Your task to perform on an android device: Go to battery settings Image 0: 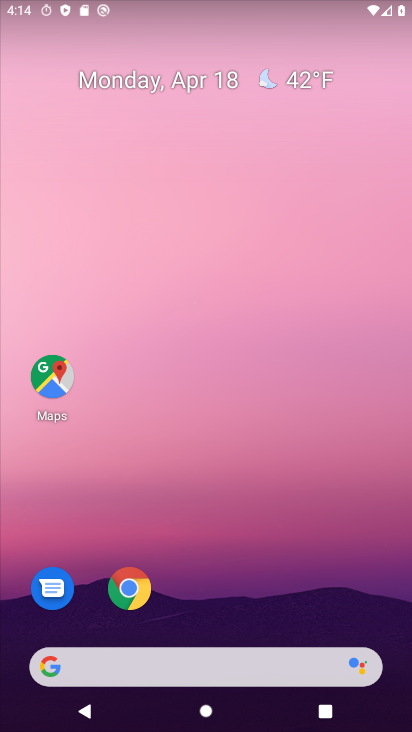
Step 0: drag from (216, 11) to (169, 730)
Your task to perform on an android device: Go to battery settings Image 1: 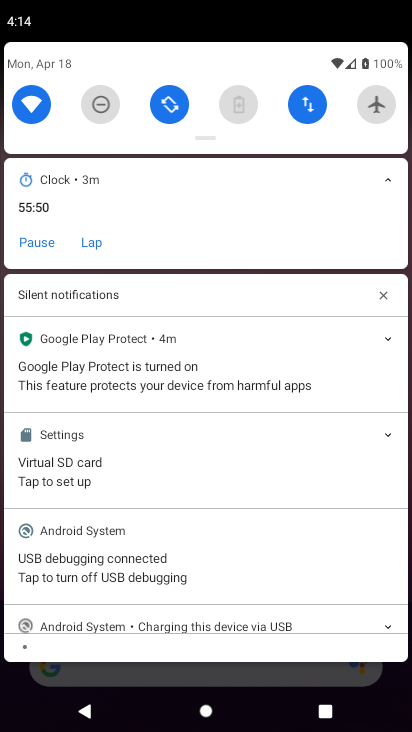
Step 1: drag from (155, 88) to (315, 612)
Your task to perform on an android device: Go to battery settings Image 2: 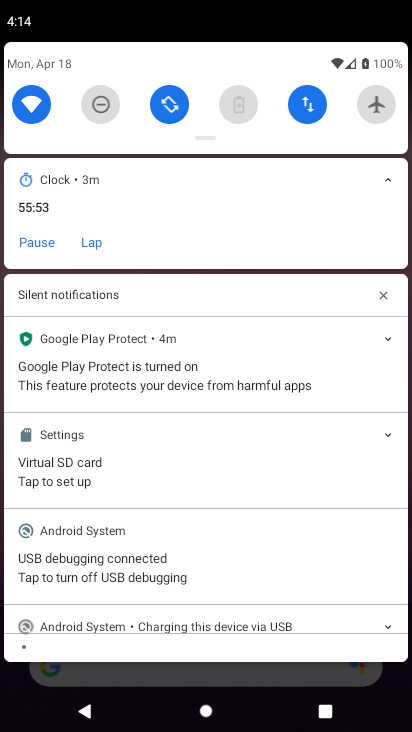
Step 2: drag from (209, 65) to (256, 620)
Your task to perform on an android device: Go to battery settings Image 3: 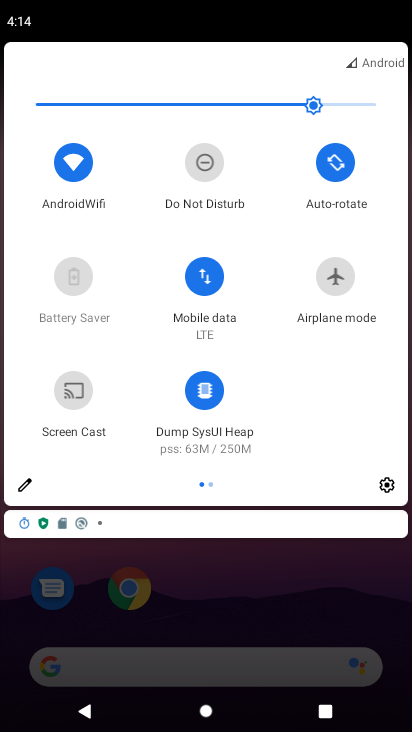
Step 3: click (389, 491)
Your task to perform on an android device: Go to battery settings Image 4: 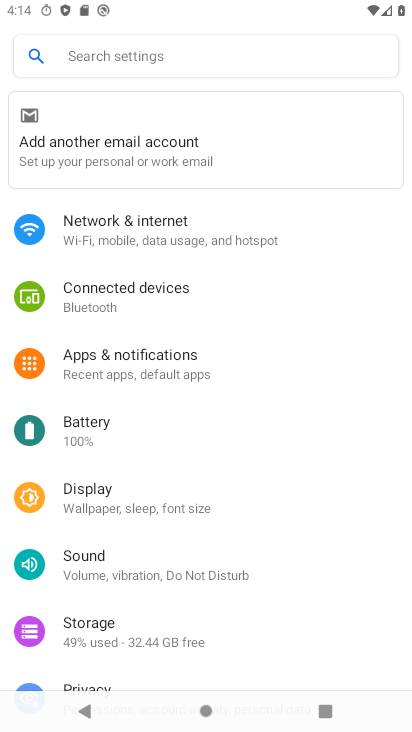
Step 4: click (170, 414)
Your task to perform on an android device: Go to battery settings Image 5: 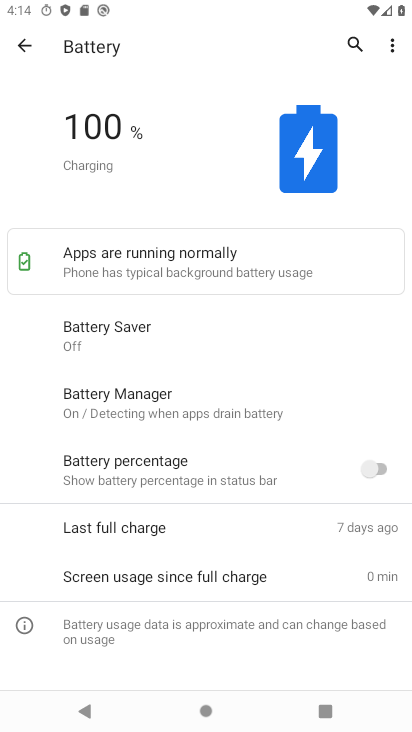
Step 5: task complete